Your task to perform on an android device: turn on location history Image 0: 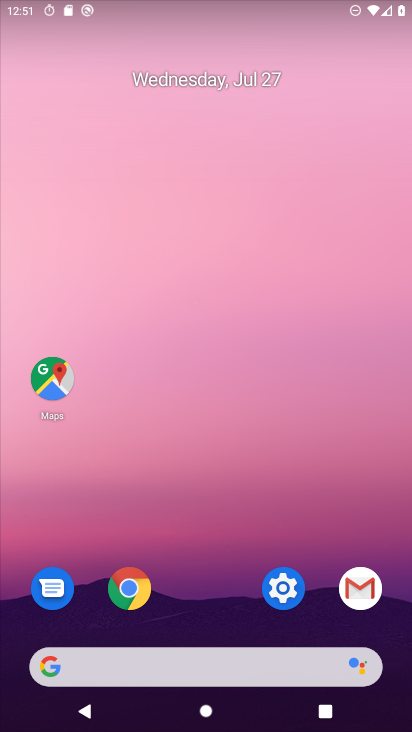
Step 0: click (285, 595)
Your task to perform on an android device: turn on location history Image 1: 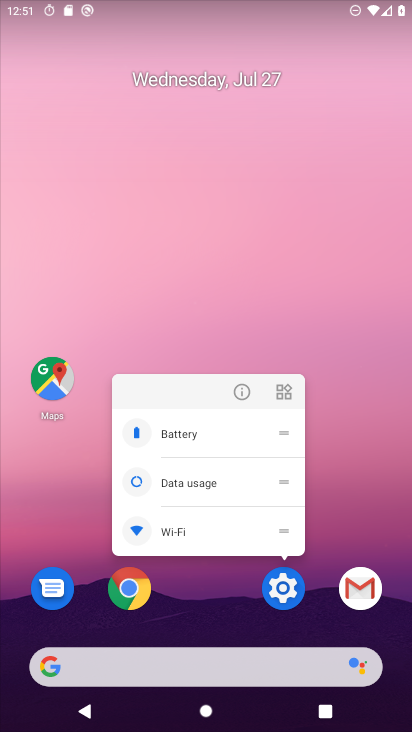
Step 1: click (283, 596)
Your task to perform on an android device: turn on location history Image 2: 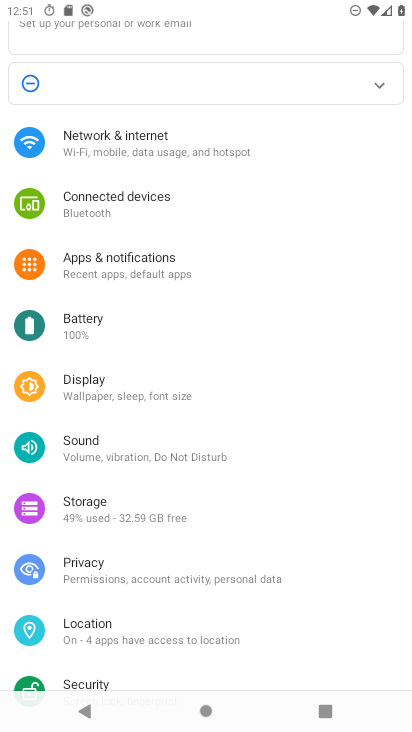
Step 2: drag from (112, 82) to (144, 185)
Your task to perform on an android device: turn on location history Image 3: 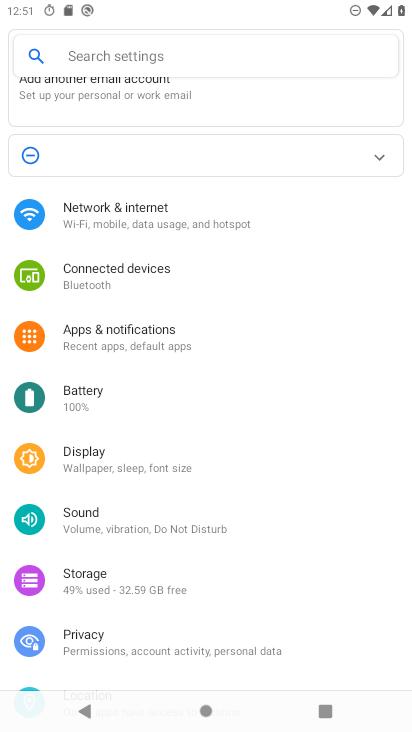
Step 3: click (98, 55)
Your task to perform on an android device: turn on location history Image 4: 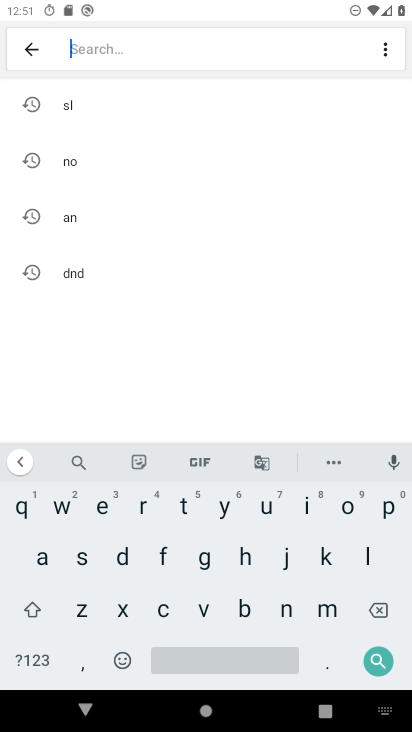
Step 4: click (368, 555)
Your task to perform on an android device: turn on location history Image 5: 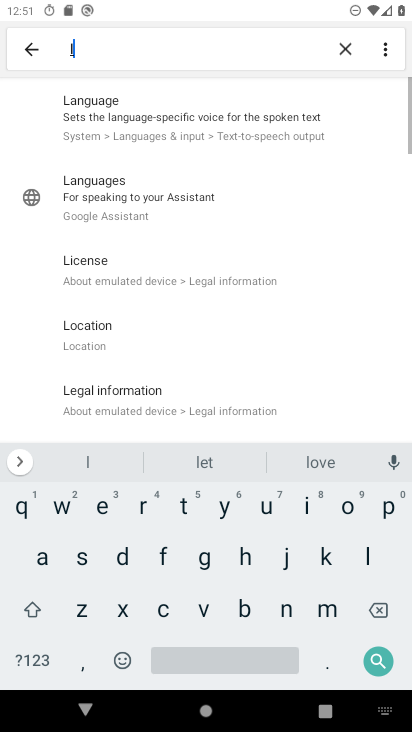
Step 5: click (346, 500)
Your task to perform on an android device: turn on location history Image 6: 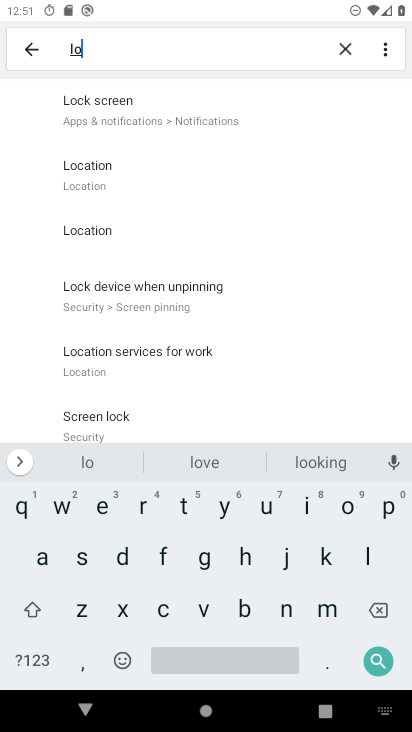
Step 6: click (93, 171)
Your task to perform on an android device: turn on location history Image 7: 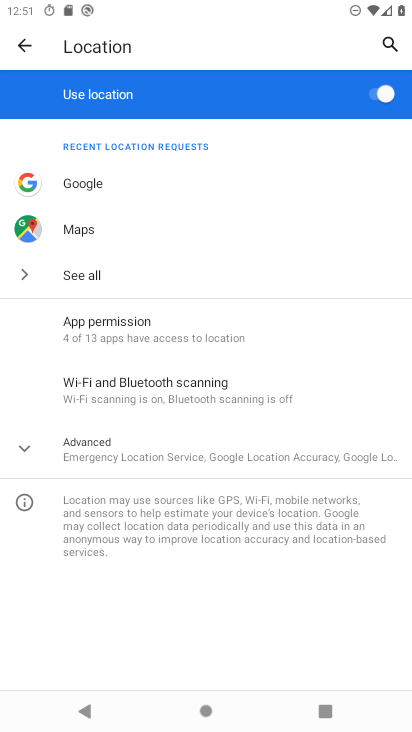
Step 7: click (35, 456)
Your task to perform on an android device: turn on location history Image 8: 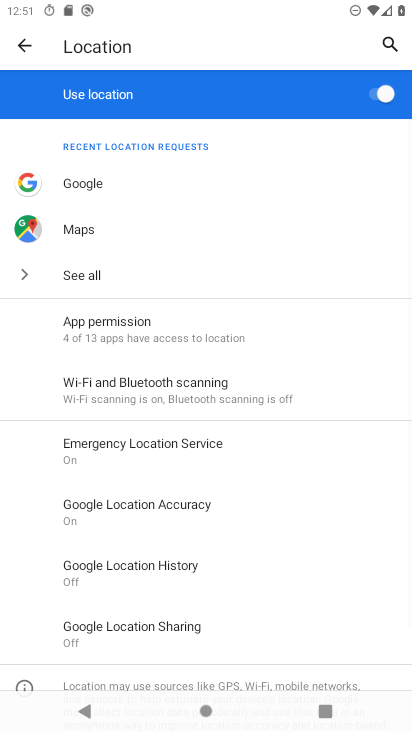
Step 8: click (155, 563)
Your task to perform on an android device: turn on location history Image 9: 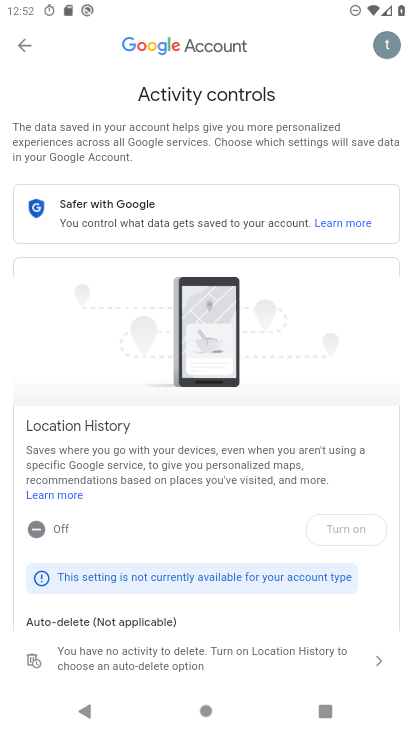
Step 9: click (321, 529)
Your task to perform on an android device: turn on location history Image 10: 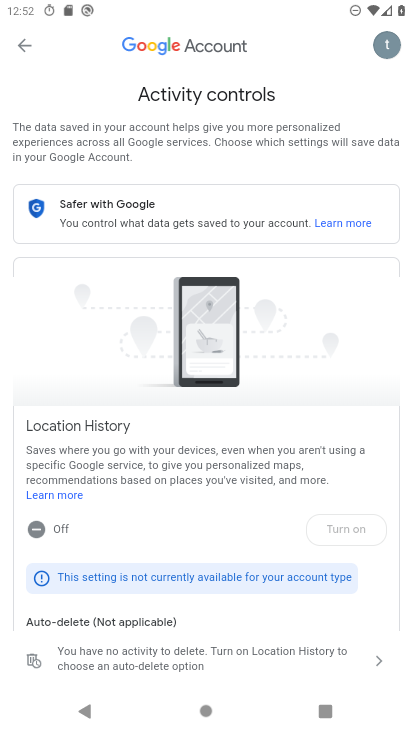
Step 10: task complete